Your task to perform on an android device: open chrome and create a bookmark for the current page Image 0: 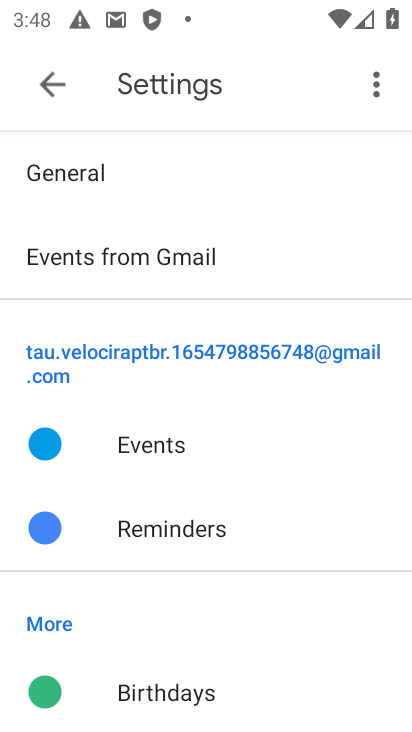
Step 0: press home button
Your task to perform on an android device: open chrome and create a bookmark for the current page Image 1: 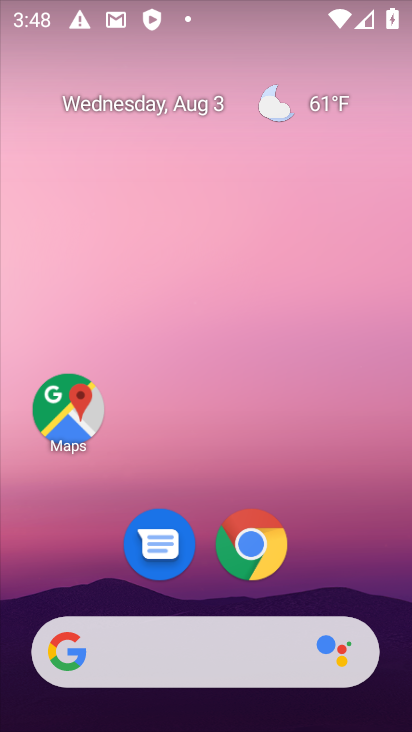
Step 1: click (253, 540)
Your task to perform on an android device: open chrome and create a bookmark for the current page Image 2: 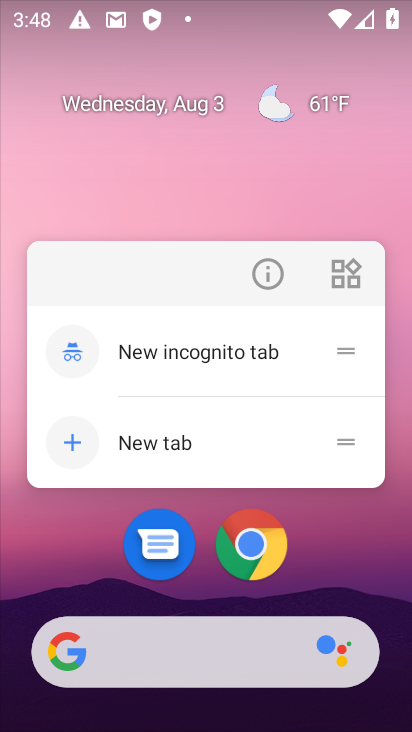
Step 2: click (253, 540)
Your task to perform on an android device: open chrome and create a bookmark for the current page Image 3: 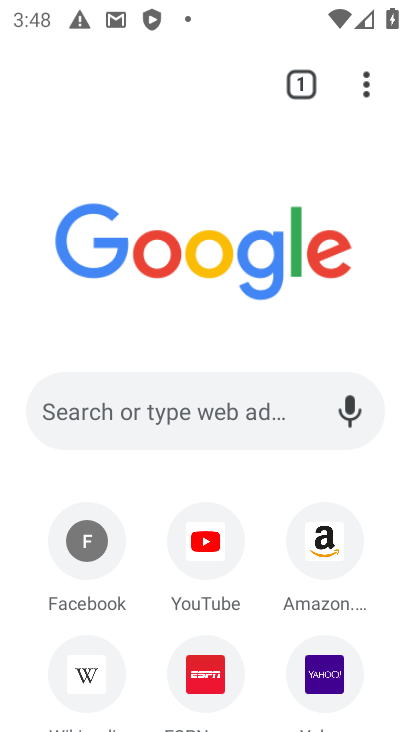
Step 3: task complete